Your task to perform on an android device: Play the last video I watched on Youtube Image 0: 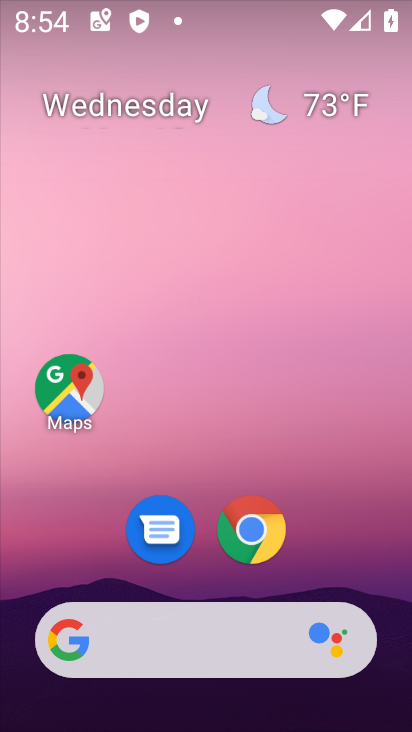
Step 0: drag from (369, 550) to (335, 246)
Your task to perform on an android device: Play the last video I watched on Youtube Image 1: 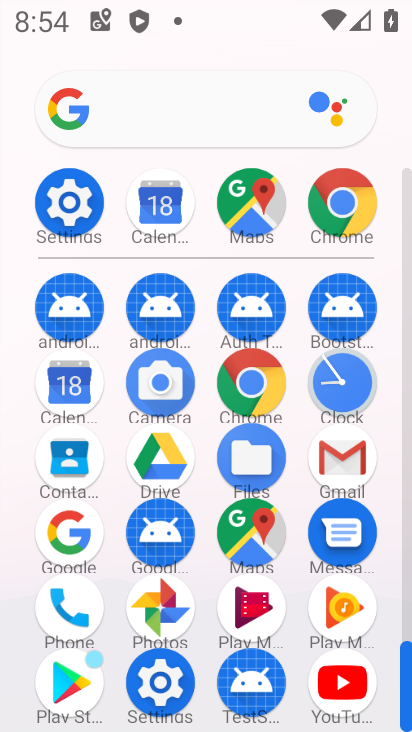
Step 1: click (343, 693)
Your task to perform on an android device: Play the last video I watched on Youtube Image 2: 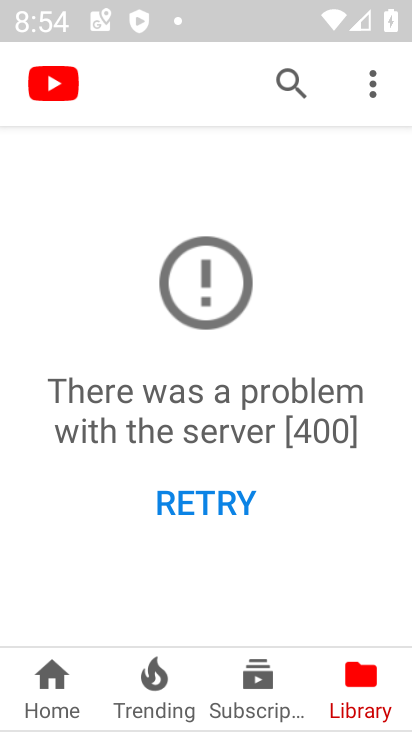
Step 2: click (364, 693)
Your task to perform on an android device: Play the last video I watched on Youtube Image 3: 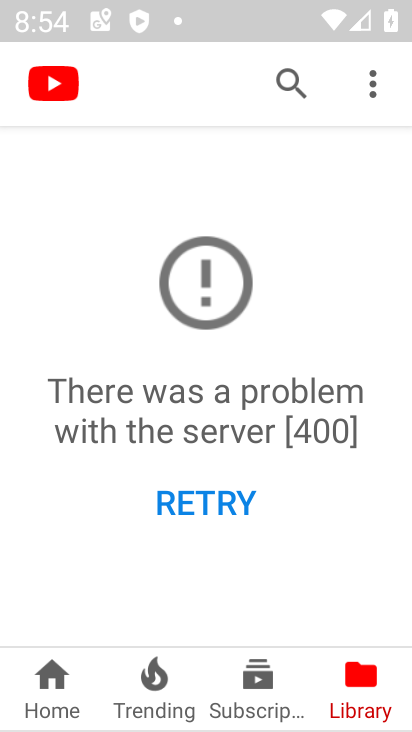
Step 3: click (55, 692)
Your task to perform on an android device: Play the last video I watched on Youtube Image 4: 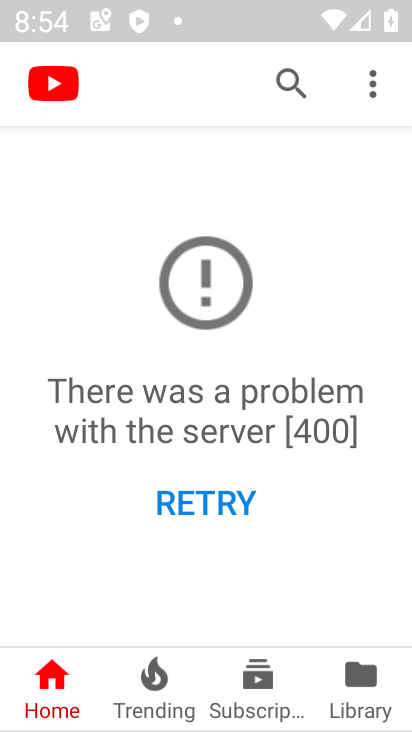
Step 4: task complete